Your task to perform on an android device: change notifications settings Image 0: 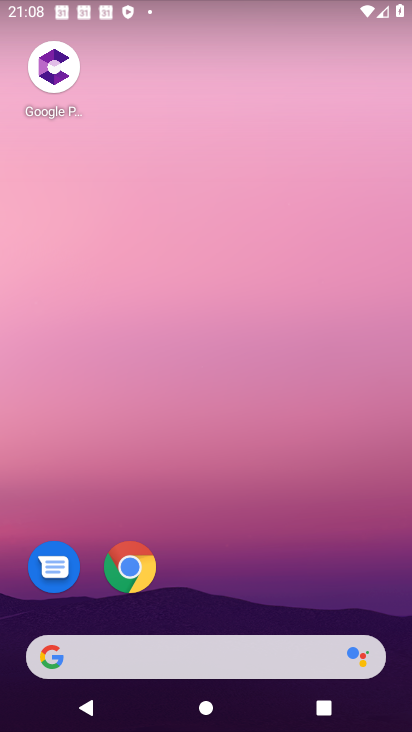
Step 0: drag from (261, 570) to (245, 169)
Your task to perform on an android device: change notifications settings Image 1: 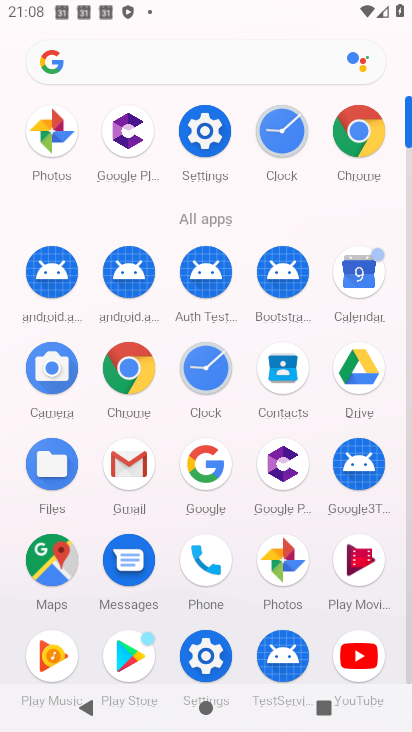
Step 1: click (206, 133)
Your task to perform on an android device: change notifications settings Image 2: 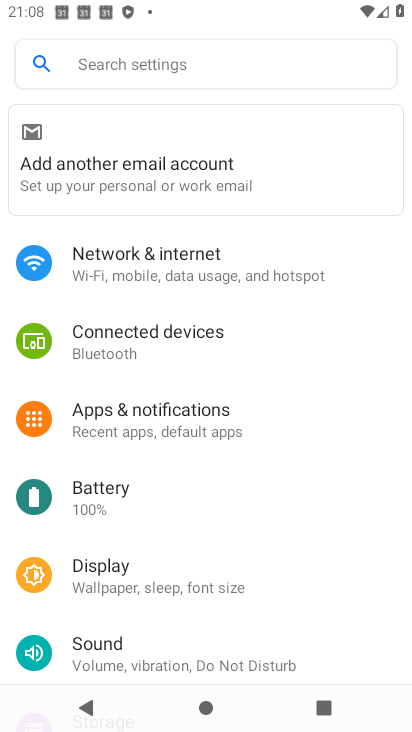
Step 2: click (154, 419)
Your task to perform on an android device: change notifications settings Image 3: 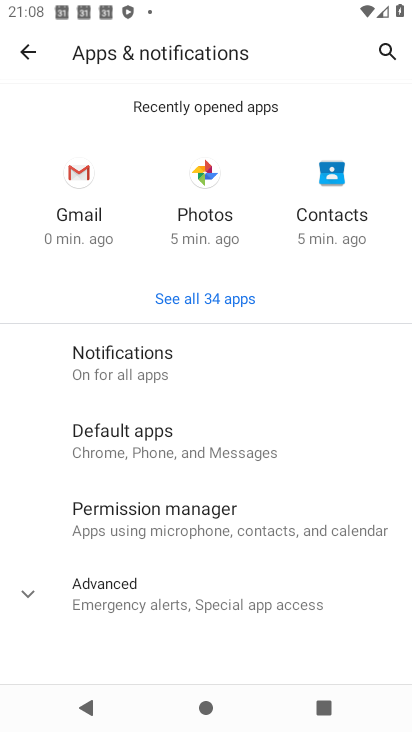
Step 3: click (190, 355)
Your task to perform on an android device: change notifications settings Image 4: 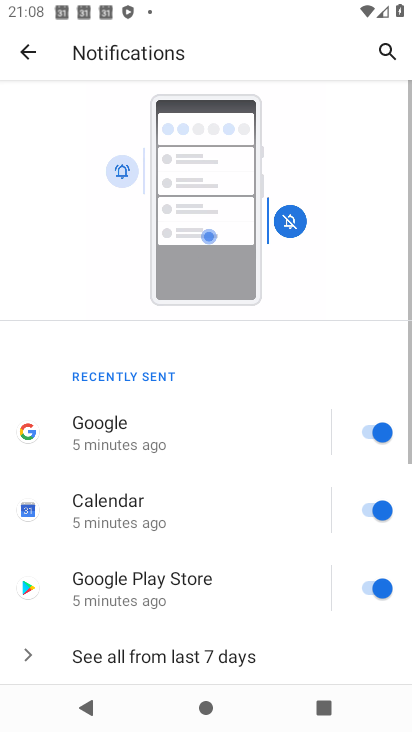
Step 4: click (381, 429)
Your task to perform on an android device: change notifications settings Image 5: 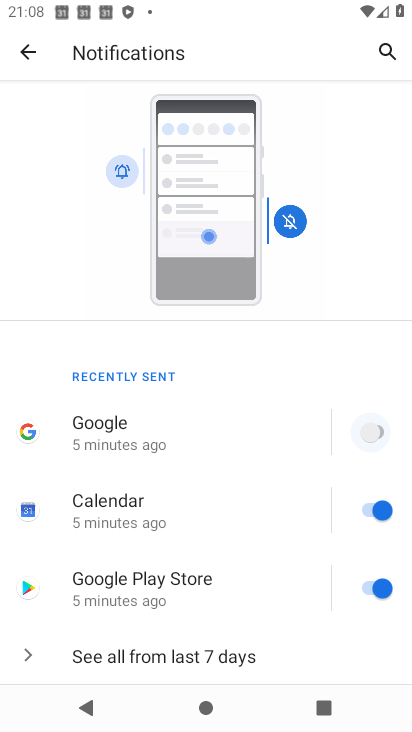
Step 5: click (371, 512)
Your task to perform on an android device: change notifications settings Image 6: 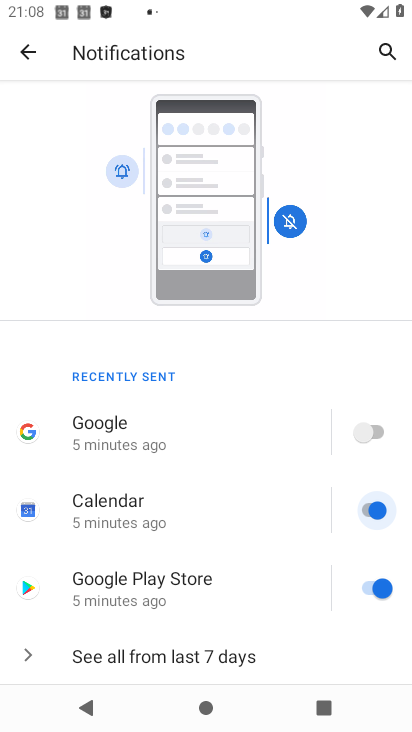
Step 6: click (366, 585)
Your task to perform on an android device: change notifications settings Image 7: 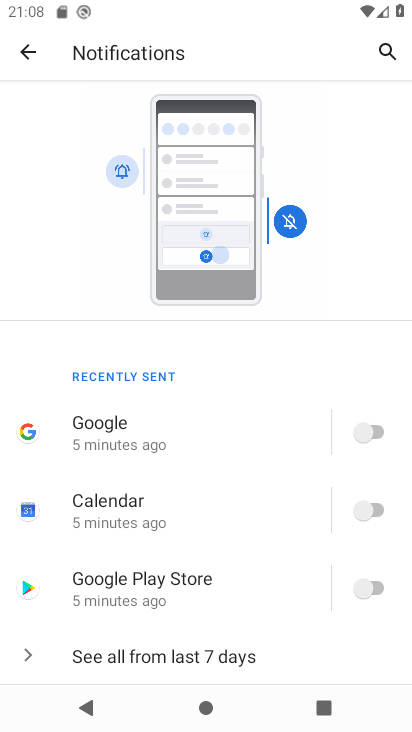
Step 7: task complete